Your task to perform on an android device: Show me the alarms in the clock app Image 0: 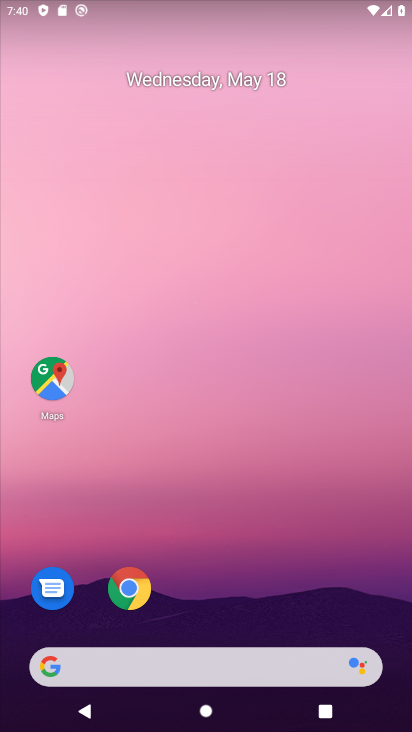
Step 0: drag from (229, 615) to (239, 206)
Your task to perform on an android device: Show me the alarms in the clock app Image 1: 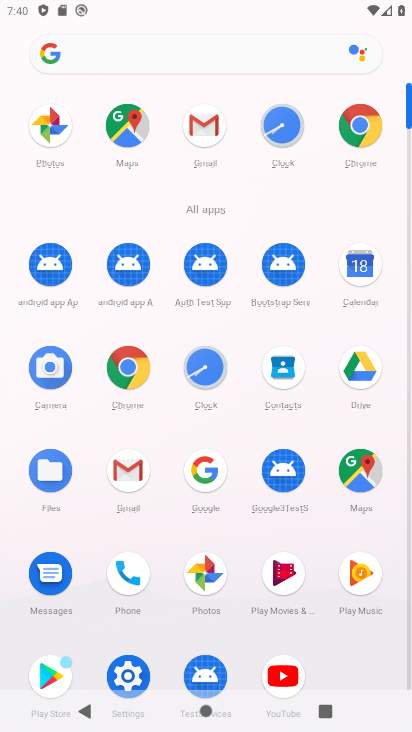
Step 1: click (201, 369)
Your task to perform on an android device: Show me the alarms in the clock app Image 2: 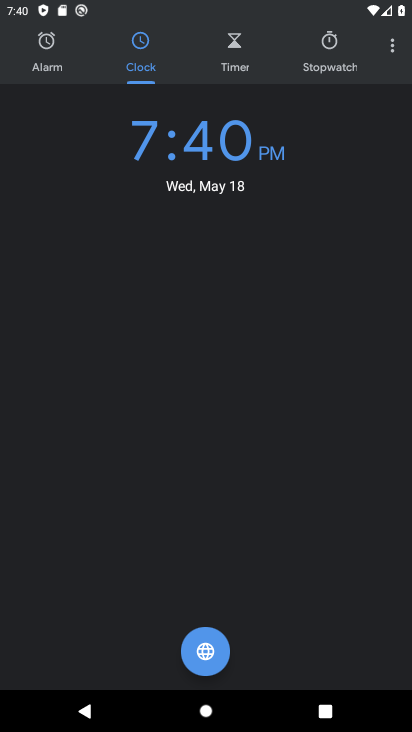
Step 2: click (59, 67)
Your task to perform on an android device: Show me the alarms in the clock app Image 3: 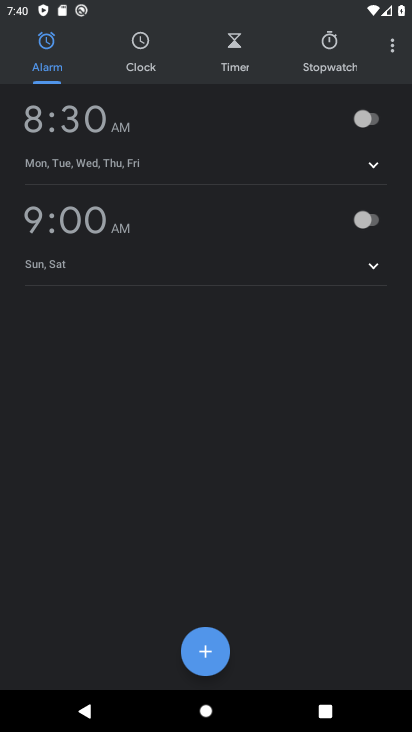
Step 3: click (110, 133)
Your task to perform on an android device: Show me the alarms in the clock app Image 4: 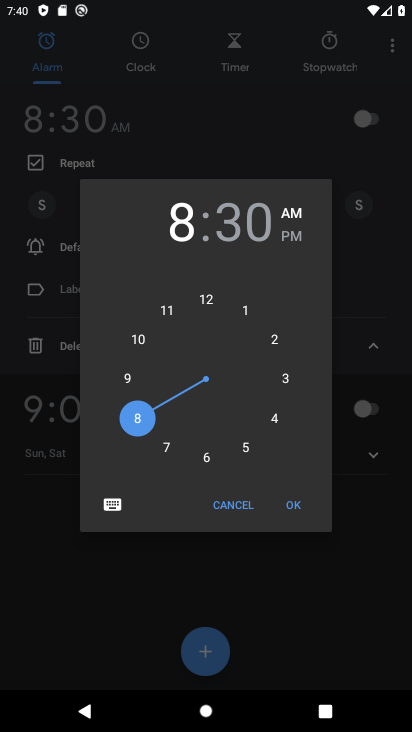
Step 4: click (134, 373)
Your task to perform on an android device: Show me the alarms in the clock app Image 5: 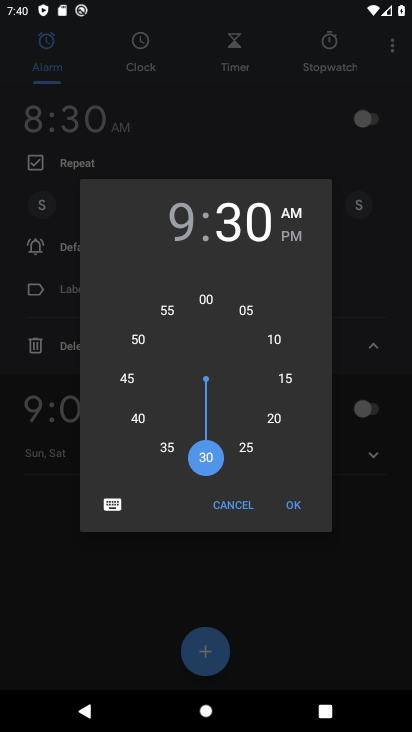
Step 5: click (249, 316)
Your task to perform on an android device: Show me the alarms in the clock app Image 6: 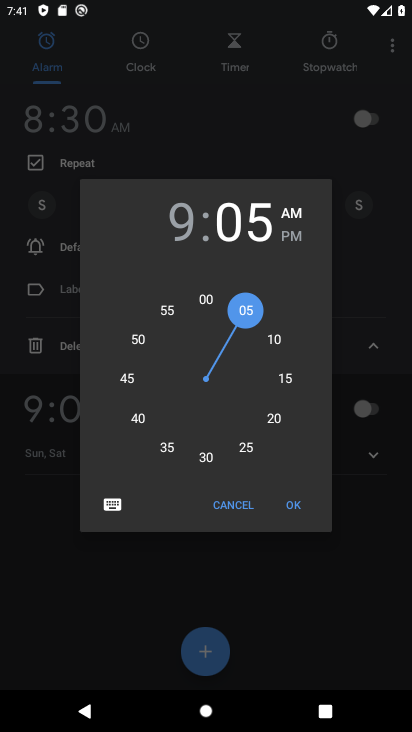
Step 6: click (296, 508)
Your task to perform on an android device: Show me the alarms in the clock app Image 7: 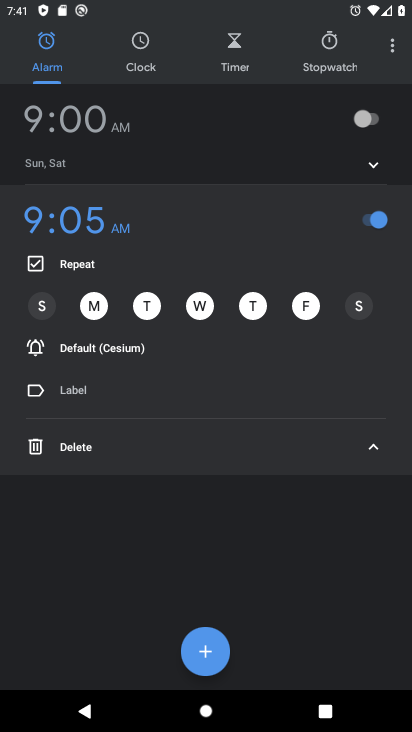
Step 7: task complete